Your task to perform on an android device: Is it going to rain tomorrow? Image 0: 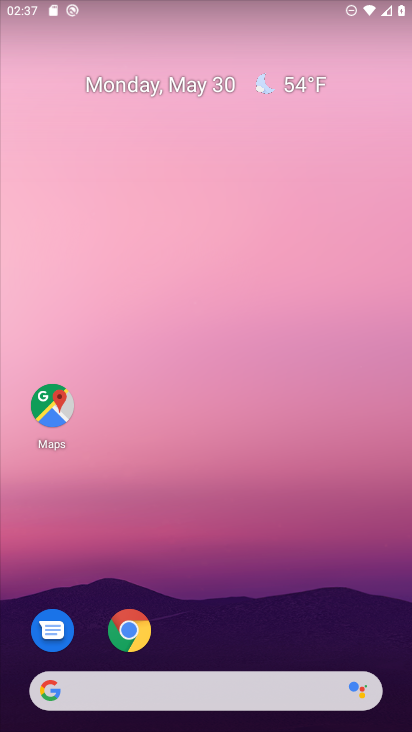
Step 0: press home button
Your task to perform on an android device: Is it going to rain tomorrow? Image 1: 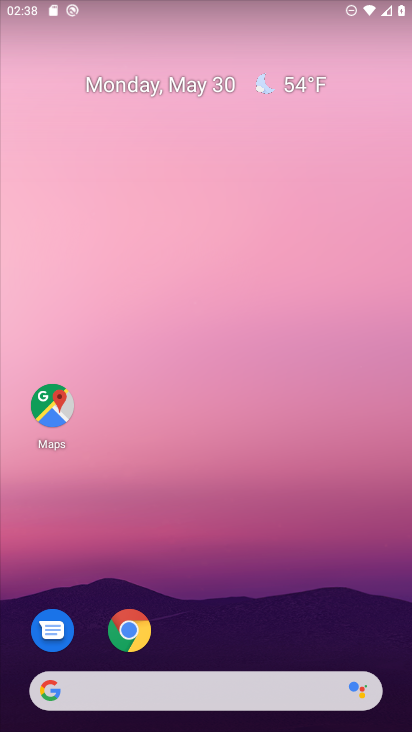
Step 1: click (290, 81)
Your task to perform on an android device: Is it going to rain tomorrow? Image 2: 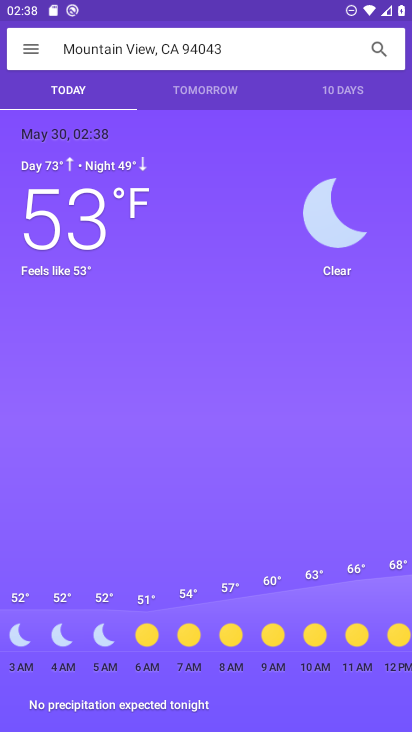
Step 2: click (210, 100)
Your task to perform on an android device: Is it going to rain tomorrow? Image 3: 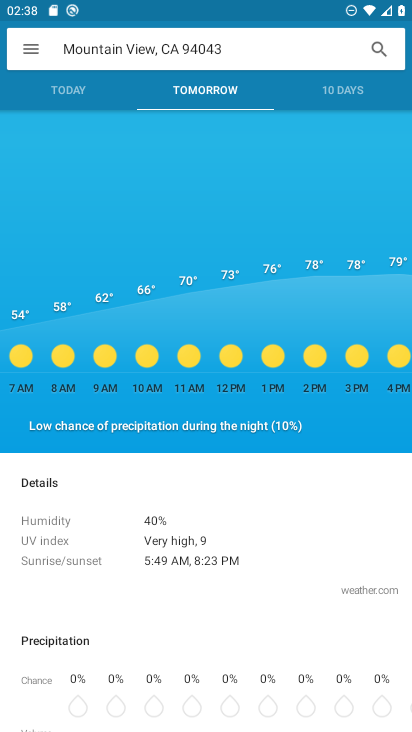
Step 3: task complete